Your task to perform on an android device: star an email in the gmail app Image 0: 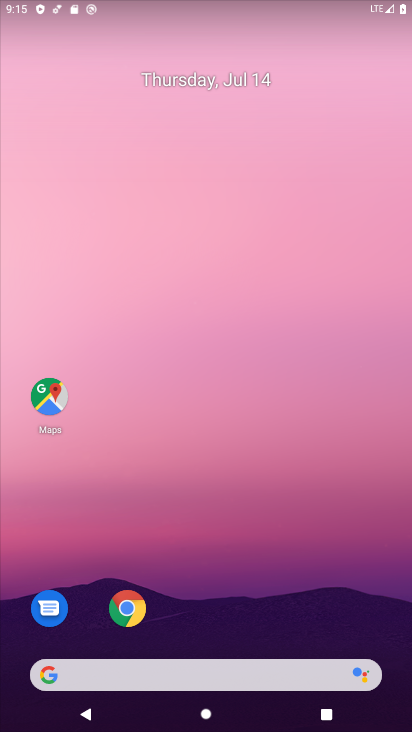
Step 0: drag from (203, 671) to (210, 261)
Your task to perform on an android device: star an email in the gmail app Image 1: 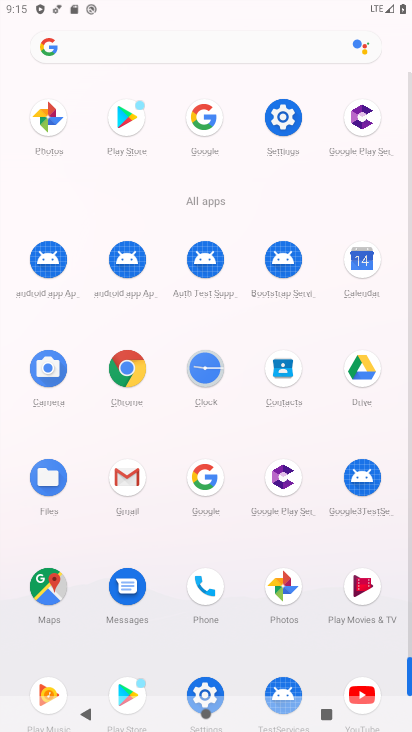
Step 1: click (151, 486)
Your task to perform on an android device: star an email in the gmail app Image 2: 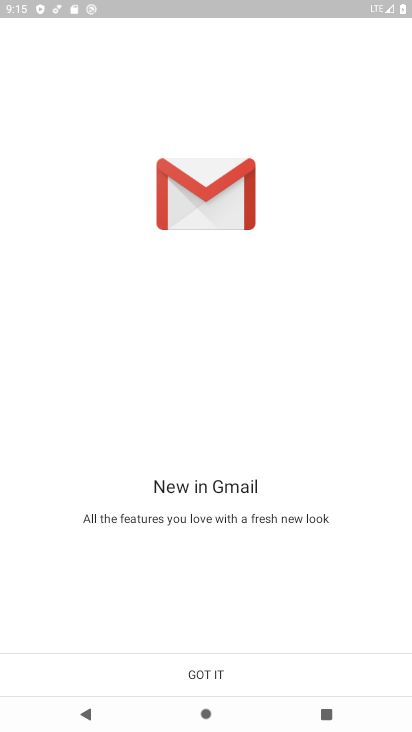
Step 2: click (170, 670)
Your task to perform on an android device: star an email in the gmail app Image 3: 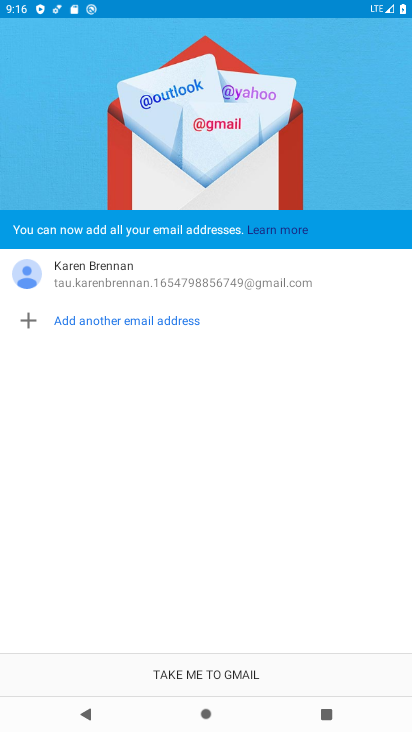
Step 3: click (173, 684)
Your task to perform on an android device: star an email in the gmail app Image 4: 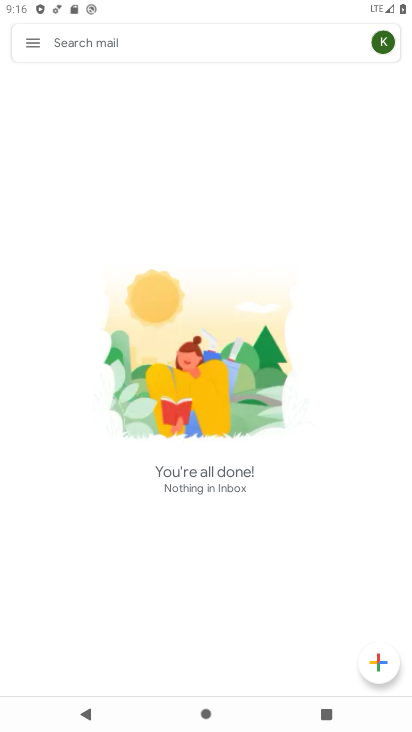
Step 4: click (45, 41)
Your task to perform on an android device: star an email in the gmail app Image 5: 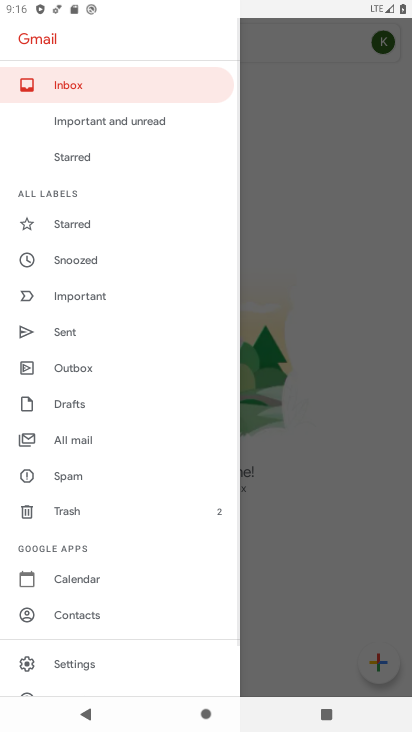
Step 5: click (103, 446)
Your task to perform on an android device: star an email in the gmail app Image 6: 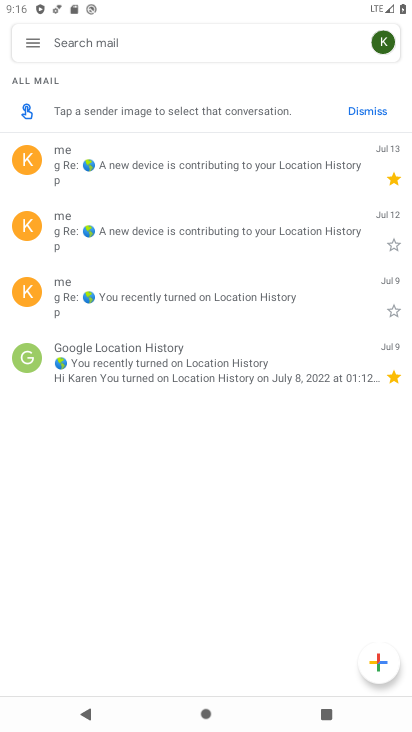
Step 6: click (397, 248)
Your task to perform on an android device: star an email in the gmail app Image 7: 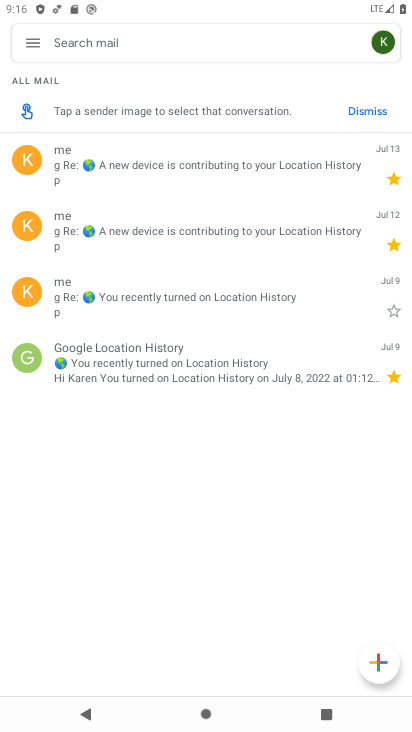
Step 7: task complete